Your task to perform on an android device: Clear the shopping cart on costco. Search for "razer deathadder" on costco, select the first entry, and add it to the cart. Image 0: 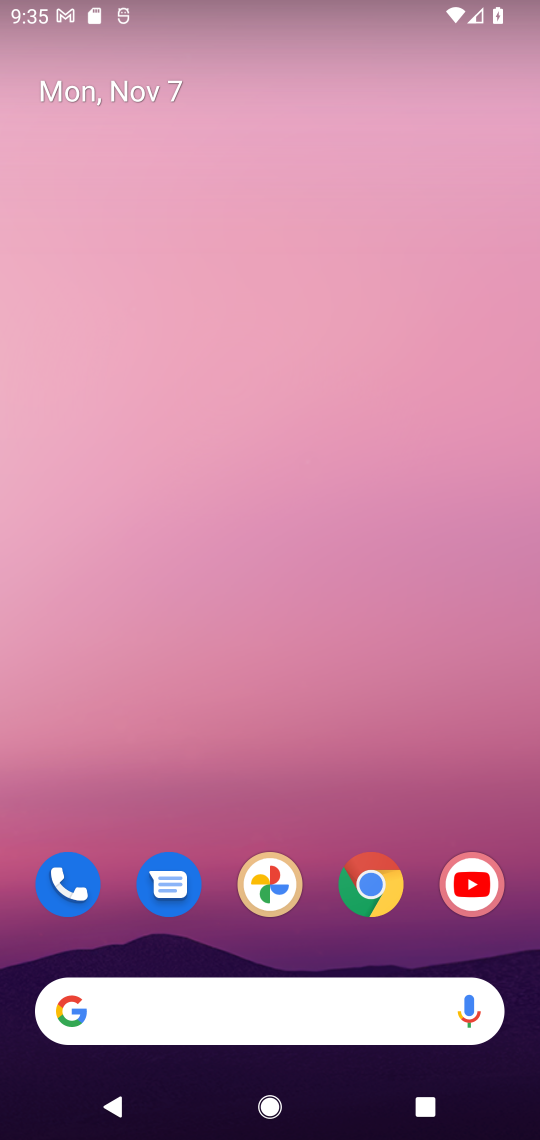
Step 0: click (376, 898)
Your task to perform on an android device: Clear the shopping cart on costco. Search for "razer deathadder" on costco, select the first entry, and add it to the cart. Image 1: 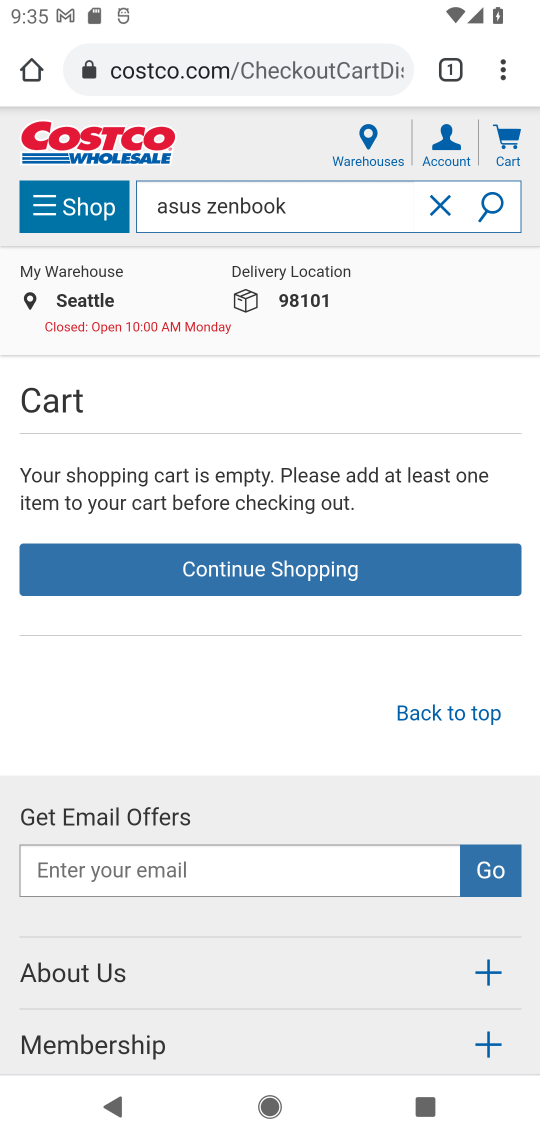
Step 1: click (500, 139)
Your task to perform on an android device: Clear the shopping cart on costco. Search for "razer deathadder" on costco, select the first entry, and add it to the cart. Image 2: 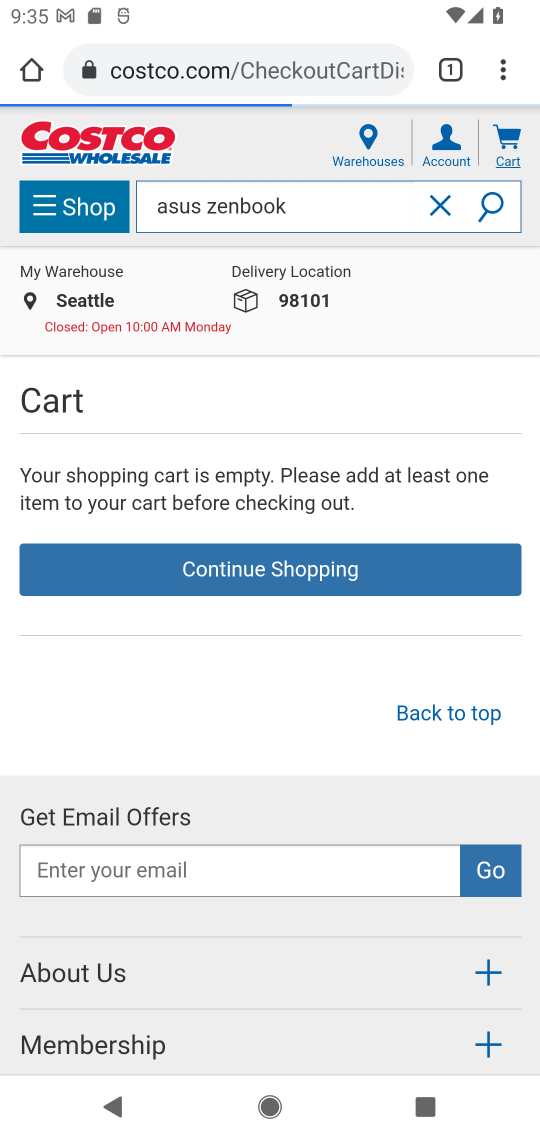
Step 2: click (446, 206)
Your task to perform on an android device: Clear the shopping cart on costco. Search for "razer deathadder" on costco, select the first entry, and add it to the cart. Image 3: 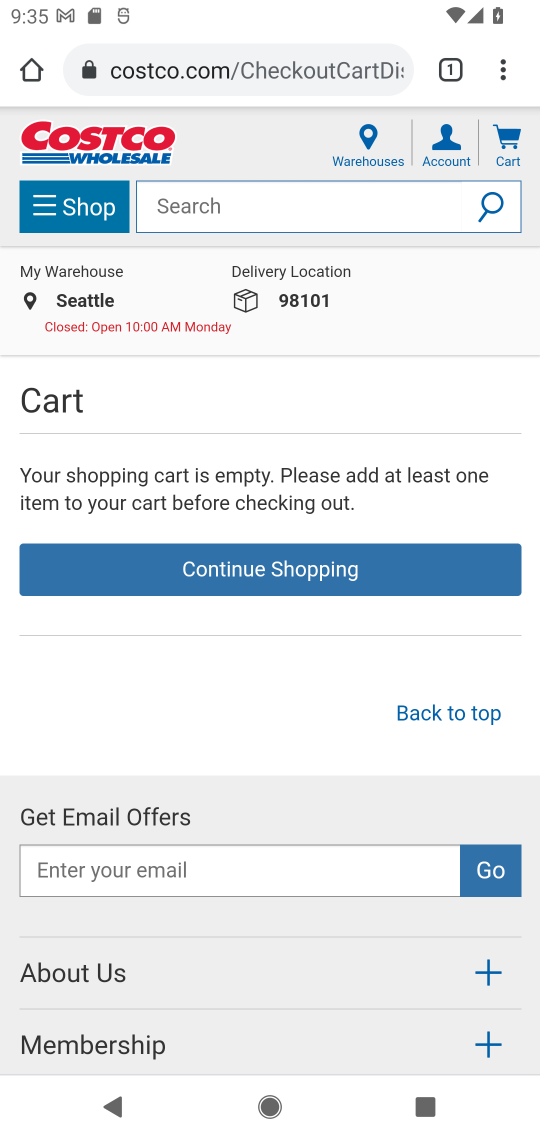
Step 3: click (282, 213)
Your task to perform on an android device: Clear the shopping cart on costco. Search for "razer deathadder" on costco, select the first entry, and add it to the cart. Image 4: 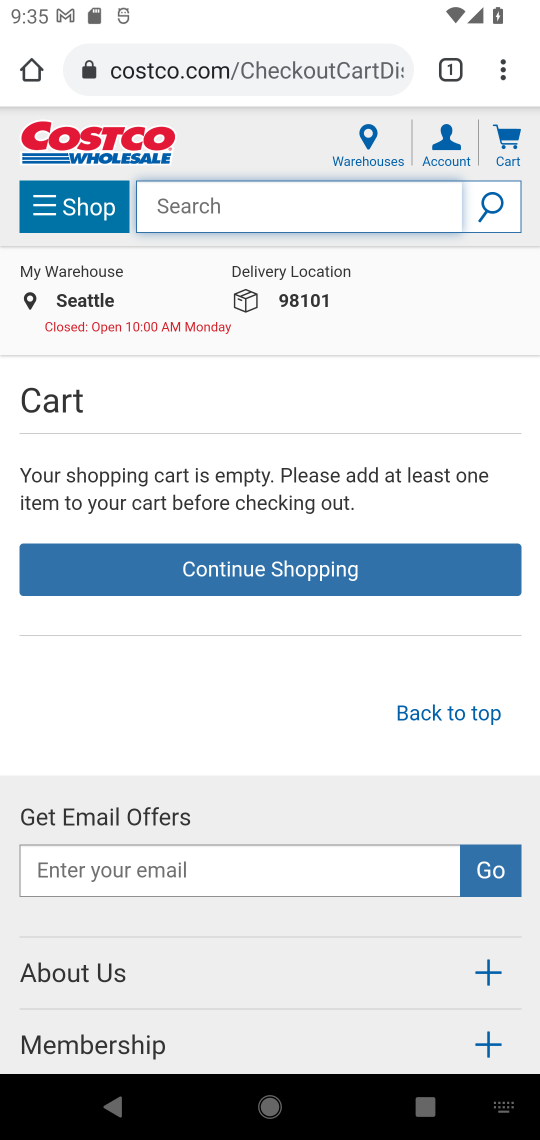
Step 4: type "razer deathadder"
Your task to perform on an android device: Clear the shopping cart on costco. Search for "razer deathadder" on costco, select the first entry, and add it to the cart. Image 5: 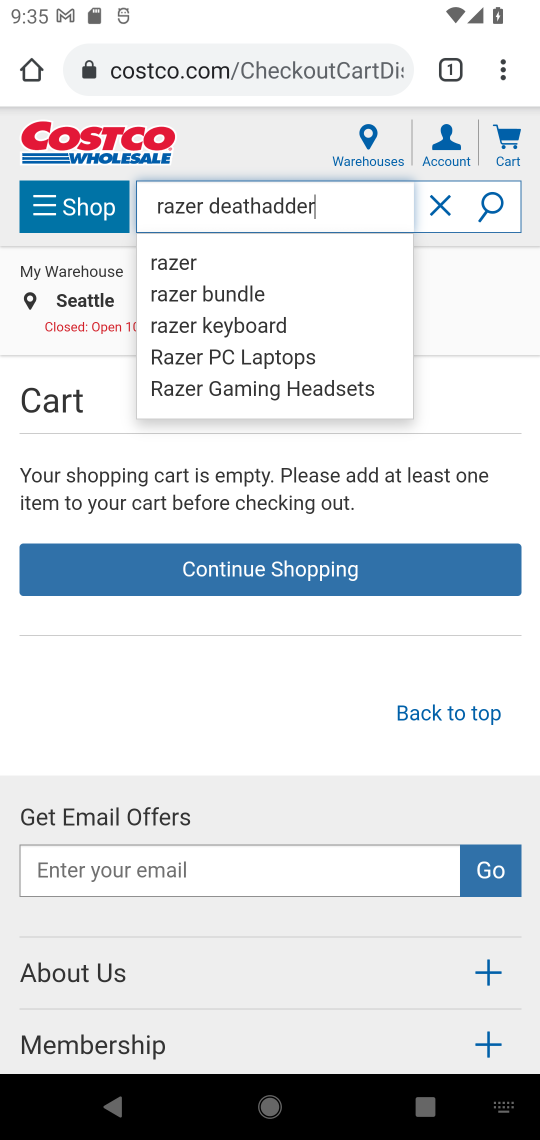
Step 5: click (513, 340)
Your task to perform on an android device: Clear the shopping cart on costco. Search for "razer deathadder" on costco, select the first entry, and add it to the cart. Image 6: 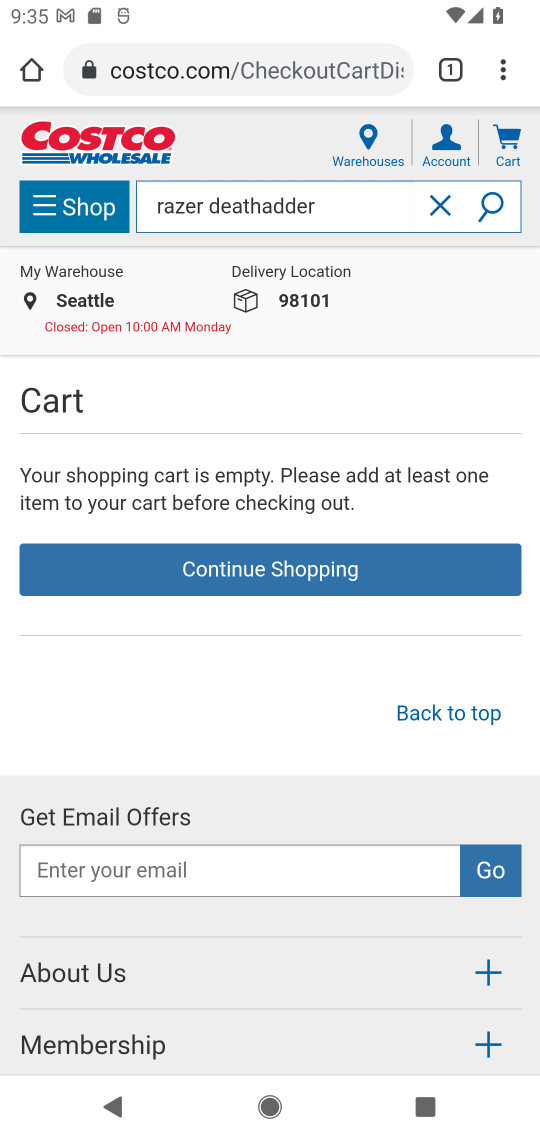
Step 6: task complete